Your task to perform on an android device: turn off airplane mode Image 0: 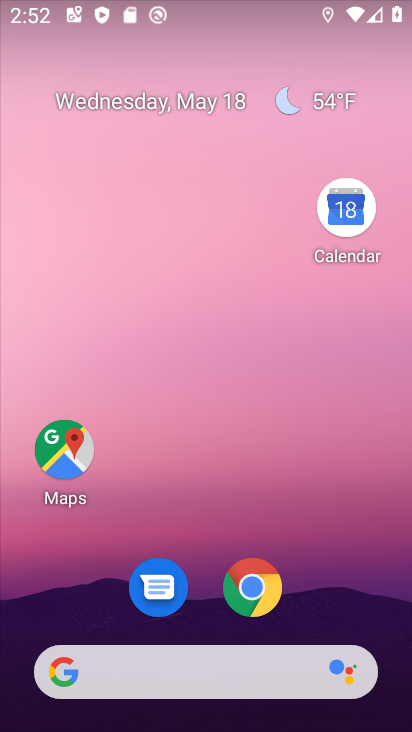
Step 0: drag from (216, 629) to (240, 213)
Your task to perform on an android device: turn off airplane mode Image 1: 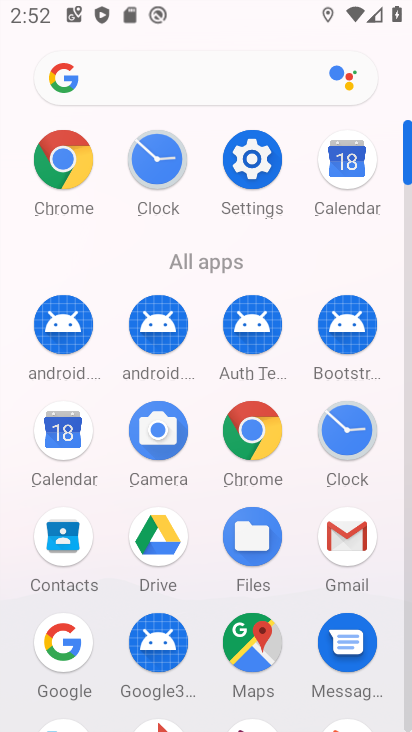
Step 1: click (247, 177)
Your task to perform on an android device: turn off airplane mode Image 2: 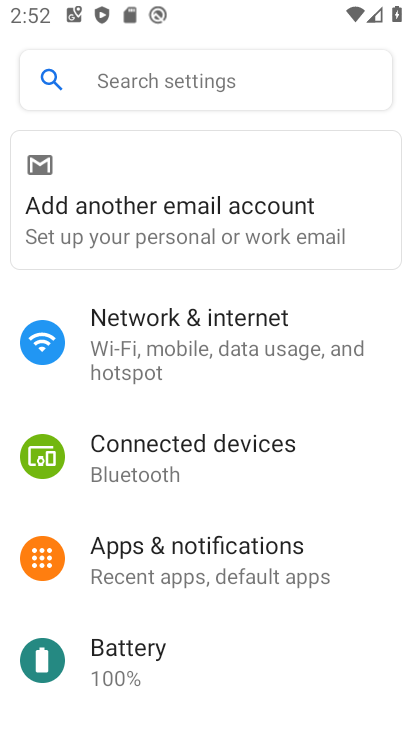
Step 2: click (165, 338)
Your task to perform on an android device: turn off airplane mode Image 3: 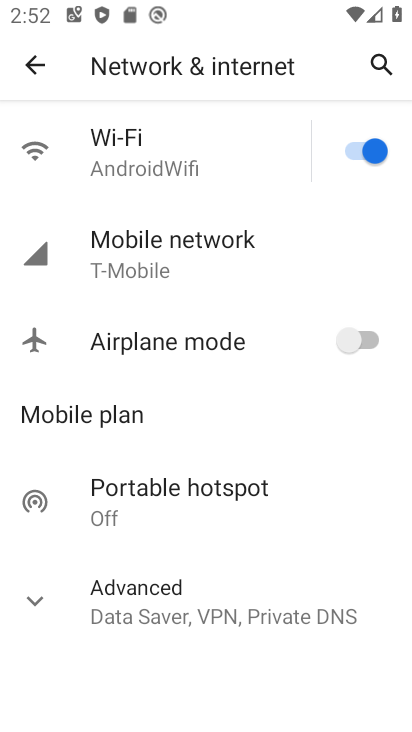
Step 3: task complete